Your task to perform on an android device: delete browsing data in the chrome app Image 0: 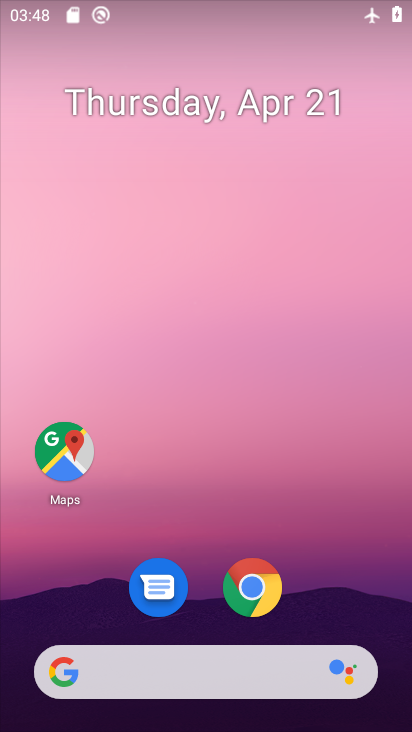
Step 0: drag from (339, 594) to (366, 226)
Your task to perform on an android device: delete browsing data in the chrome app Image 1: 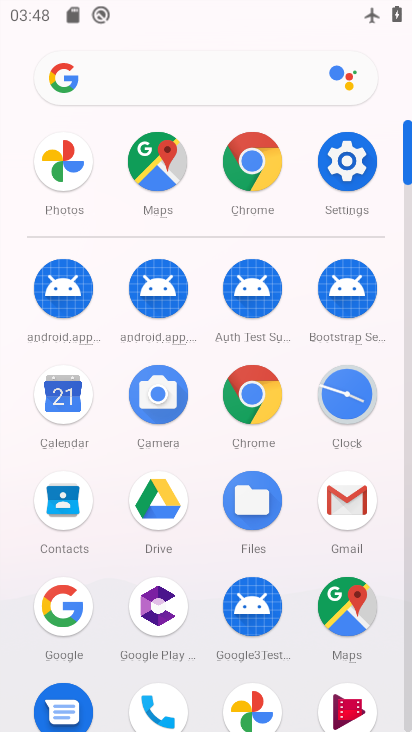
Step 1: click (261, 420)
Your task to perform on an android device: delete browsing data in the chrome app Image 2: 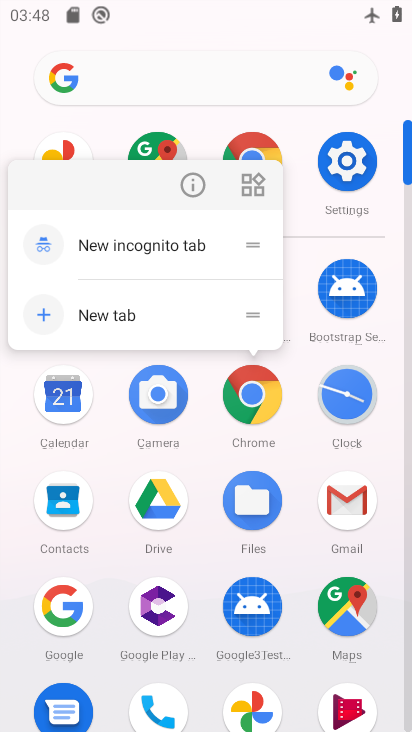
Step 2: click (261, 420)
Your task to perform on an android device: delete browsing data in the chrome app Image 3: 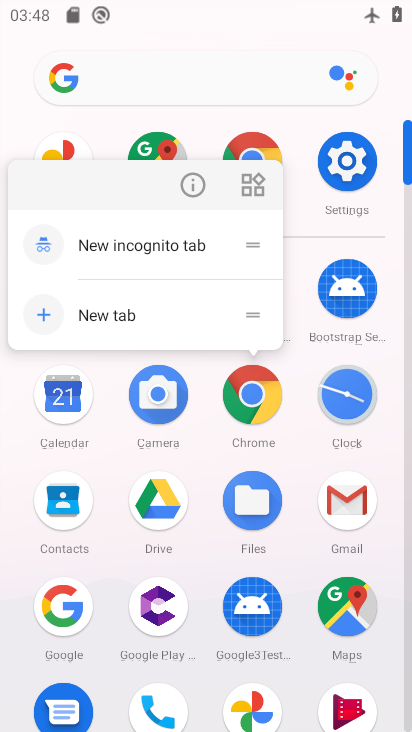
Step 3: click (262, 421)
Your task to perform on an android device: delete browsing data in the chrome app Image 4: 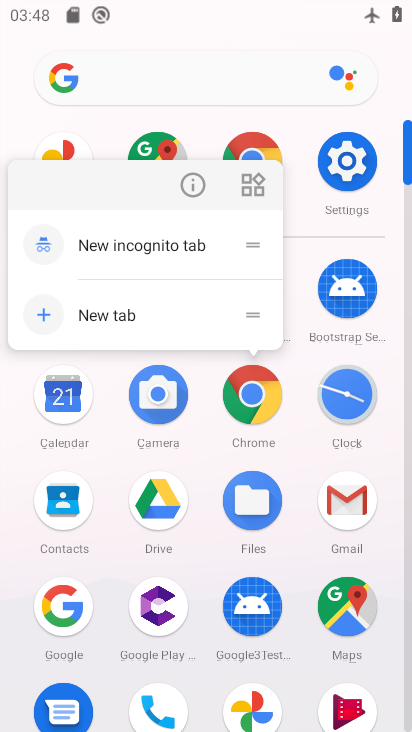
Step 4: click (262, 421)
Your task to perform on an android device: delete browsing data in the chrome app Image 5: 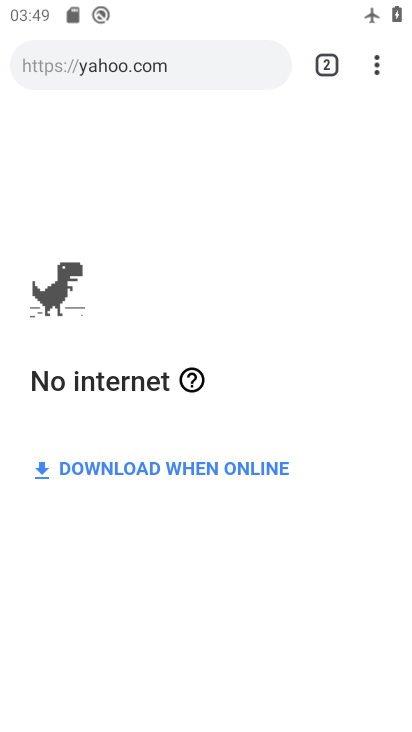
Step 5: task complete